Your task to perform on an android device: change keyboard looks Image 0: 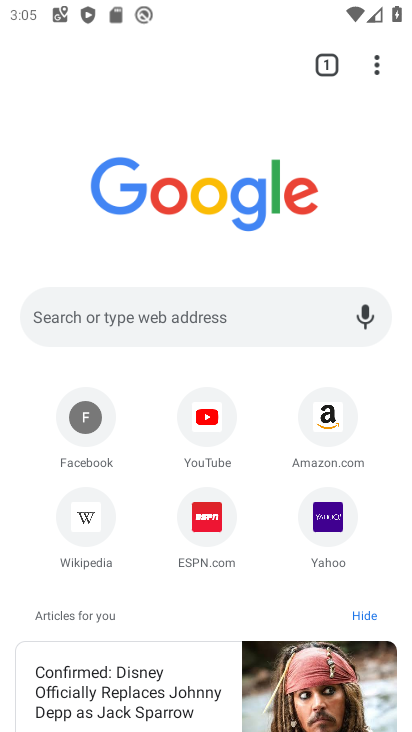
Step 0: press home button
Your task to perform on an android device: change keyboard looks Image 1: 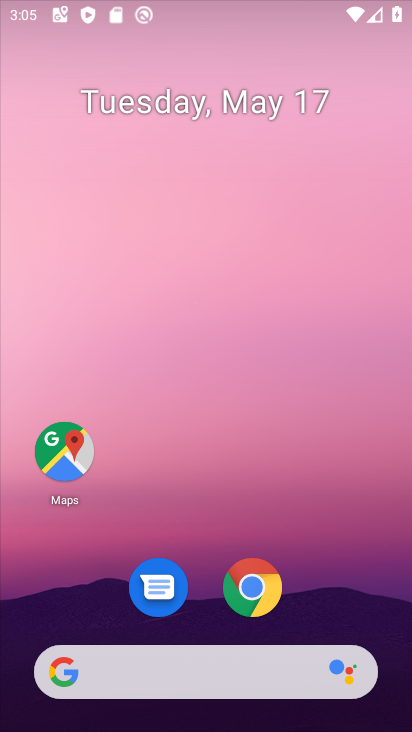
Step 1: drag from (286, 631) to (328, 76)
Your task to perform on an android device: change keyboard looks Image 2: 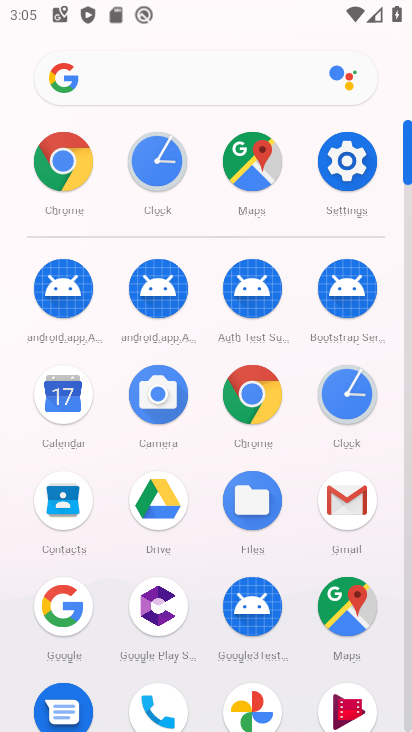
Step 2: click (246, 417)
Your task to perform on an android device: change keyboard looks Image 3: 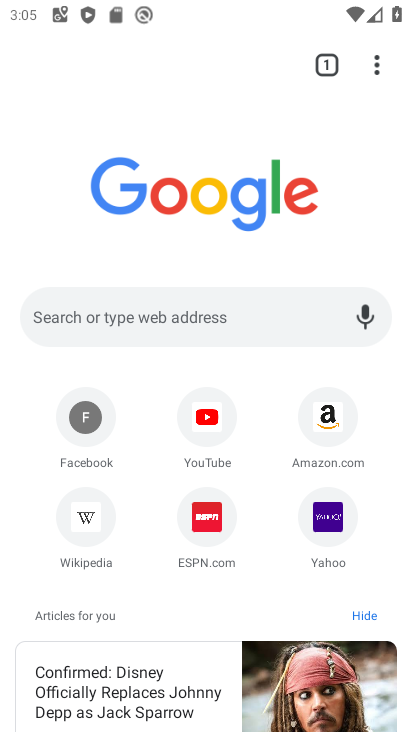
Step 3: click (371, 64)
Your task to perform on an android device: change keyboard looks Image 4: 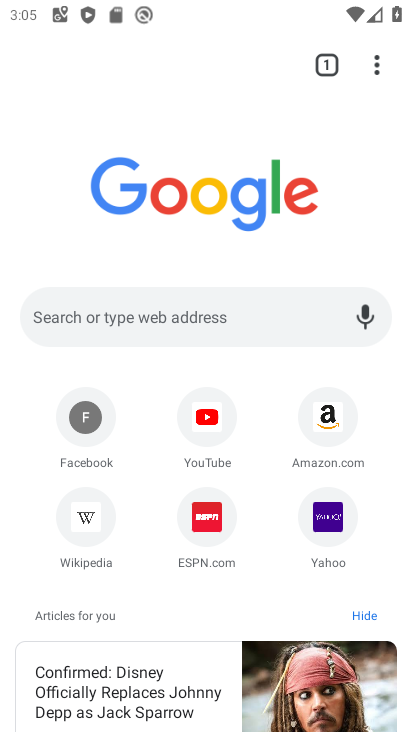
Step 4: press home button
Your task to perform on an android device: change keyboard looks Image 5: 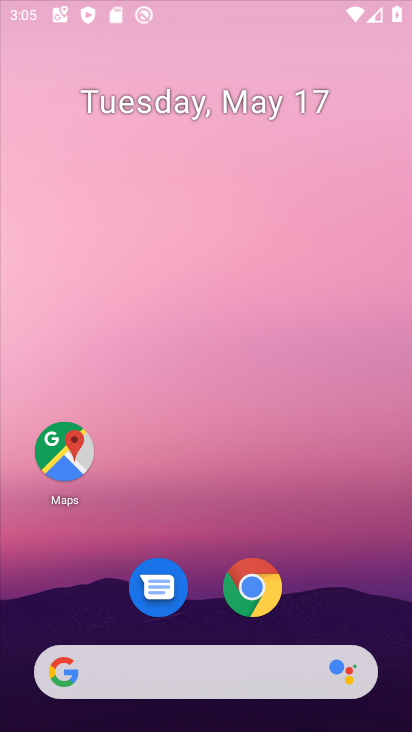
Step 5: drag from (228, 646) to (175, 27)
Your task to perform on an android device: change keyboard looks Image 6: 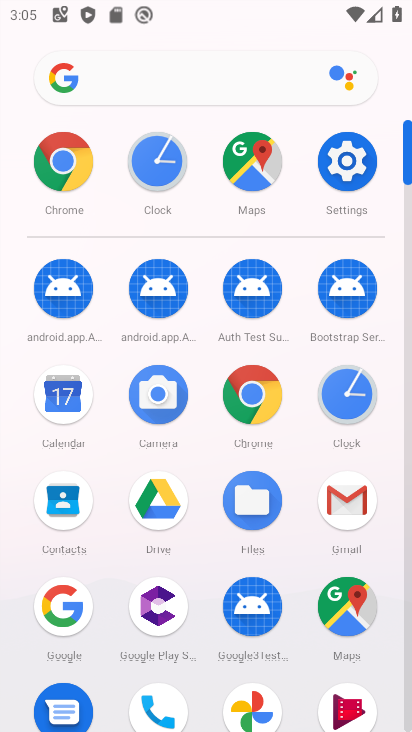
Step 6: click (354, 183)
Your task to perform on an android device: change keyboard looks Image 7: 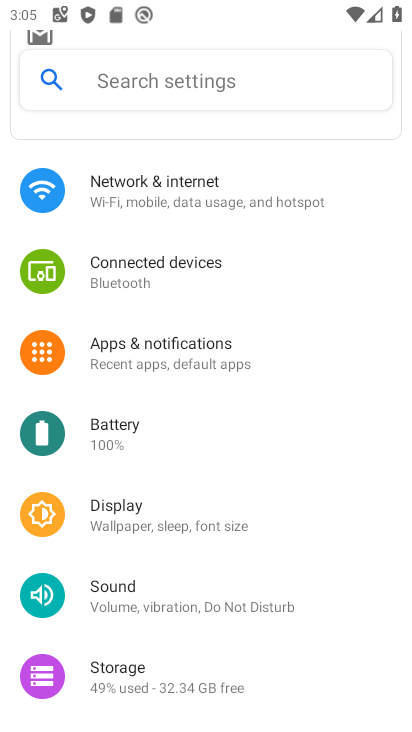
Step 7: drag from (263, 644) to (282, 26)
Your task to perform on an android device: change keyboard looks Image 8: 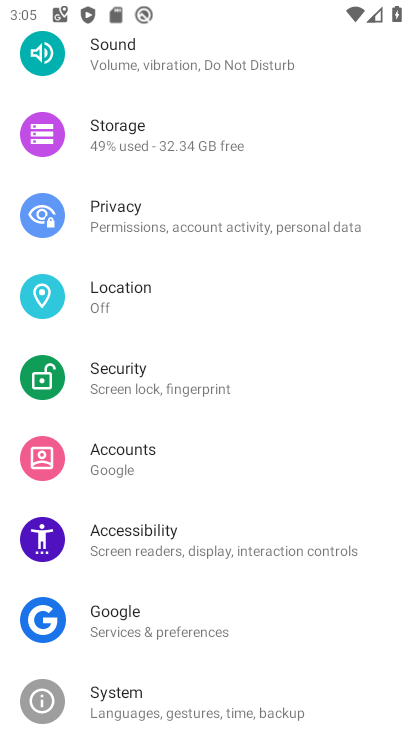
Step 8: click (161, 537)
Your task to perform on an android device: change keyboard looks Image 9: 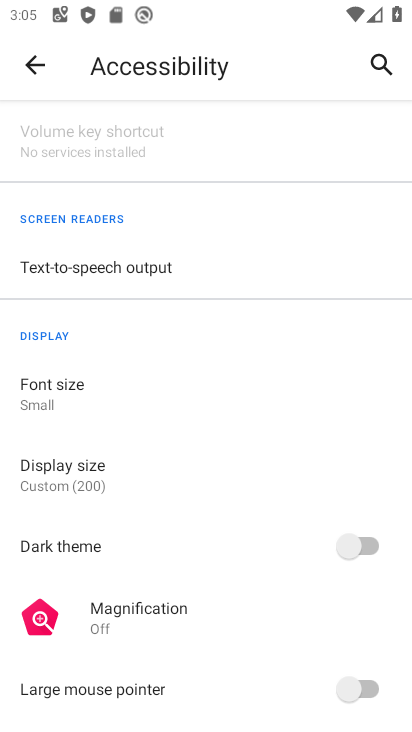
Step 9: press back button
Your task to perform on an android device: change keyboard looks Image 10: 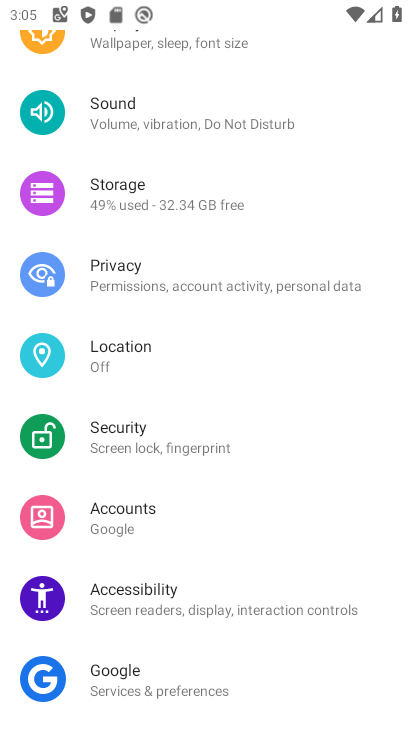
Step 10: drag from (207, 589) to (247, 278)
Your task to perform on an android device: change keyboard looks Image 11: 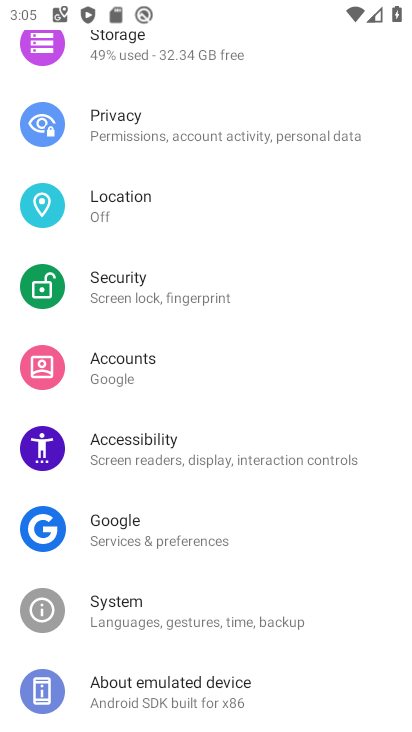
Step 11: click (152, 623)
Your task to perform on an android device: change keyboard looks Image 12: 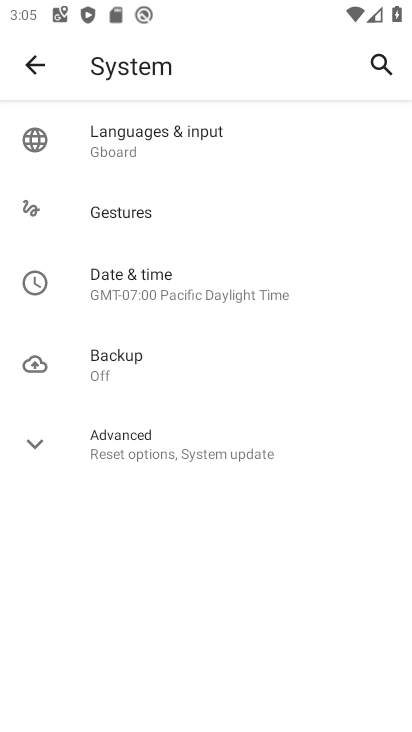
Step 12: click (153, 126)
Your task to perform on an android device: change keyboard looks Image 13: 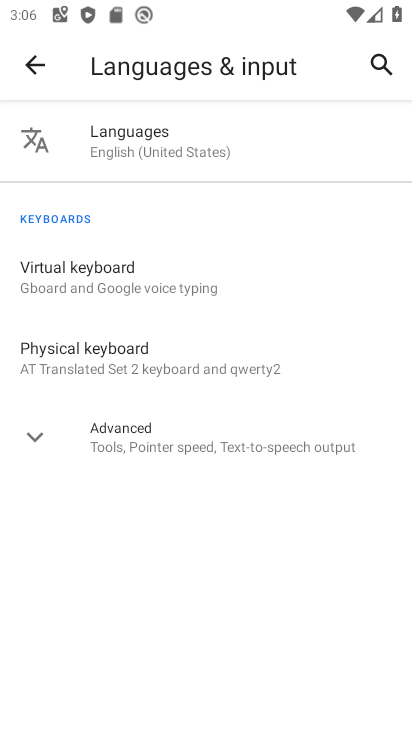
Step 13: click (131, 281)
Your task to perform on an android device: change keyboard looks Image 14: 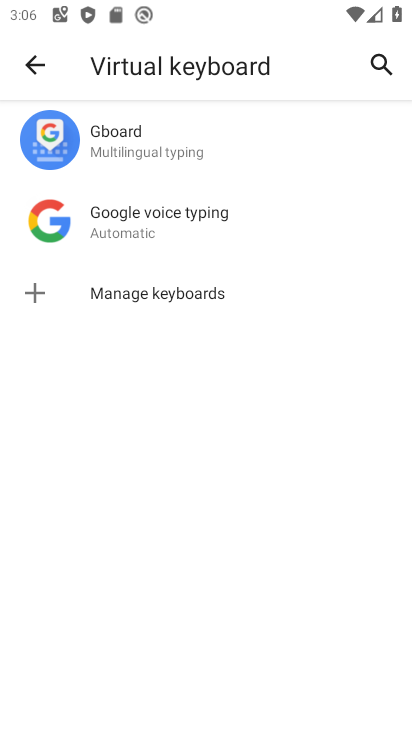
Step 14: click (175, 148)
Your task to perform on an android device: change keyboard looks Image 15: 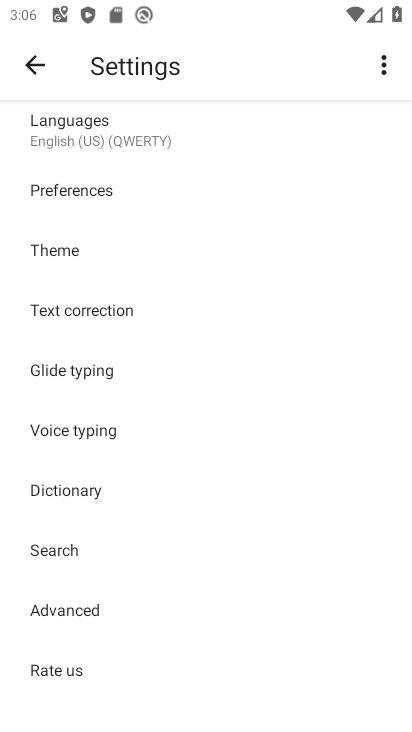
Step 15: click (97, 251)
Your task to perform on an android device: change keyboard looks Image 16: 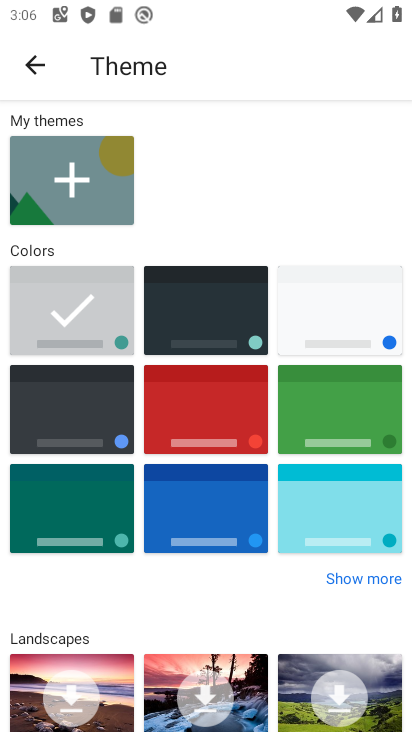
Step 16: click (356, 414)
Your task to perform on an android device: change keyboard looks Image 17: 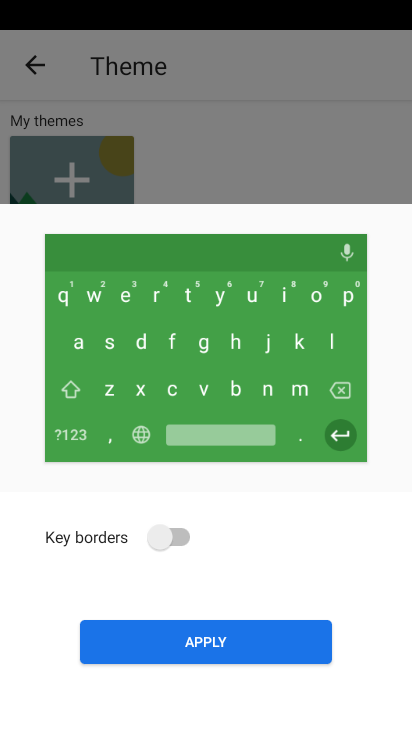
Step 17: click (205, 649)
Your task to perform on an android device: change keyboard looks Image 18: 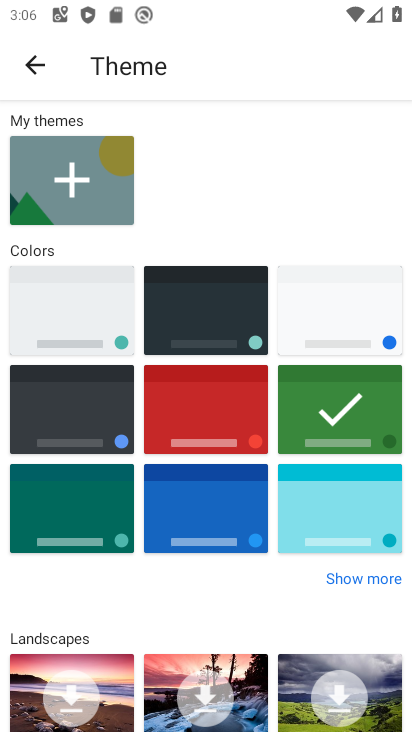
Step 18: task complete